Your task to perform on an android device: See recent photos Image 0: 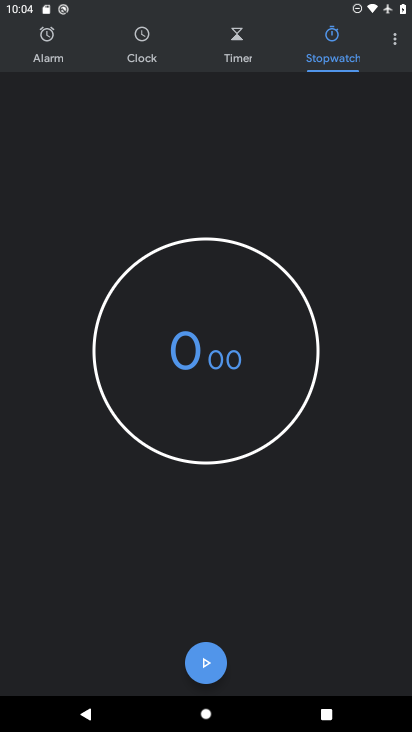
Step 0: press home button
Your task to perform on an android device: See recent photos Image 1: 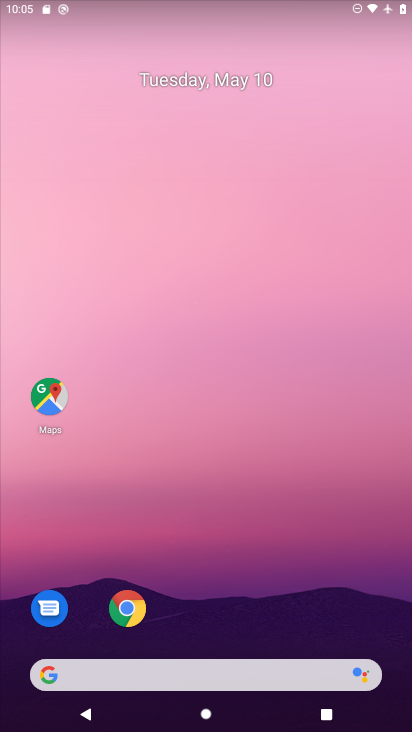
Step 1: drag from (220, 626) to (288, 274)
Your task to perform on an android device: See recent photos Image 2: 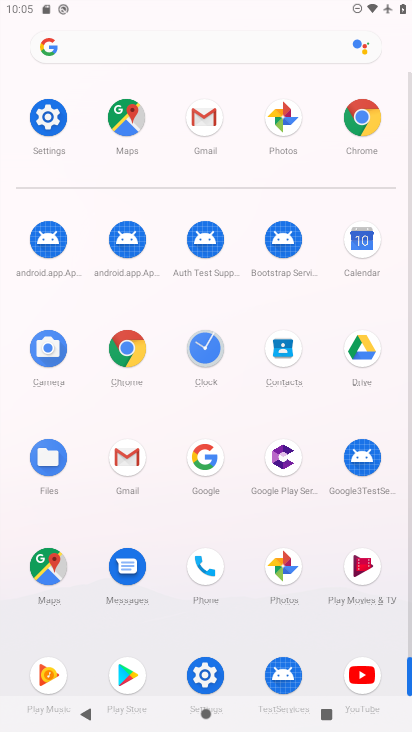
Step 2: click (282, 564)
Your task to perform on an android device: See recent photos Image 3: 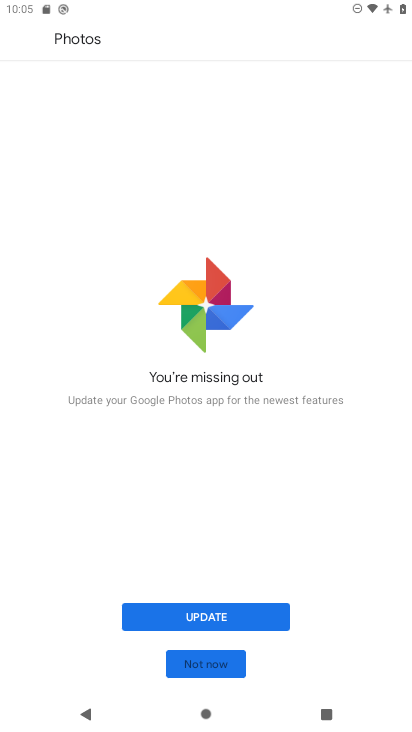
Step 3: click (209, 662)
Your task to perform on an android device: See recent photos Image 4: 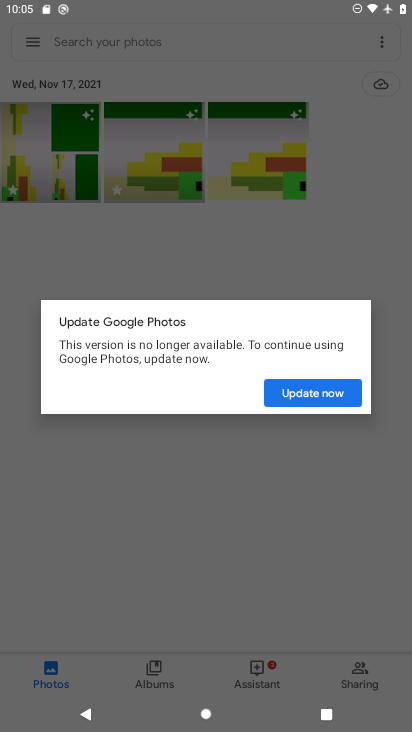
Step 4: click (307, 378)
Your task to perform on an android device: See recent photos Image 5: 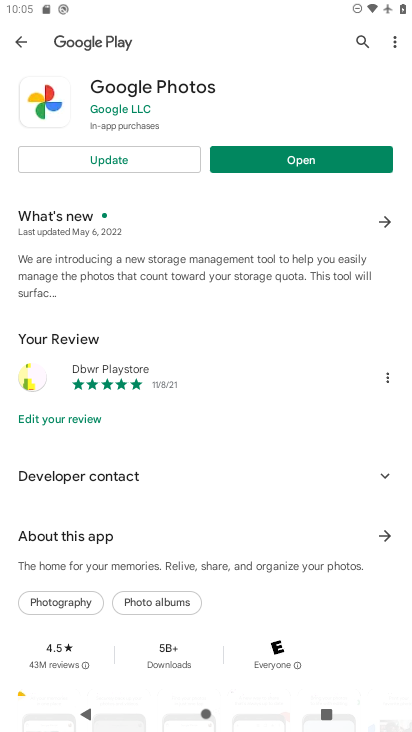
Step 5: press back button
Your task to perform on an android device: See recent photos Image 6: 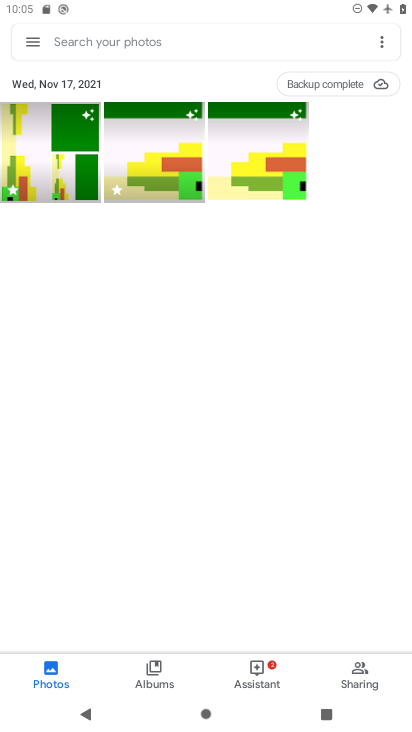
Step 6: click (151, 666)
Your task to perform on an android device: See recent photos Image 7: 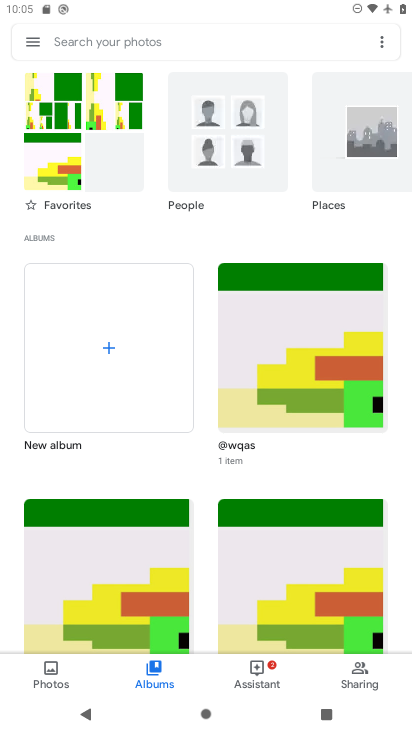
Step 7: click (50, 679)
Your task to perform on an android device: See recent photos Image 8: 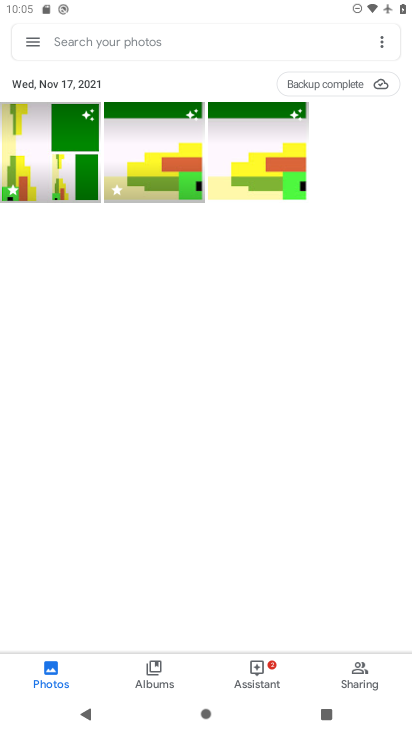
Step 8: click (60, 151)
Your task to perform on an android device: See recent photos Image 9: 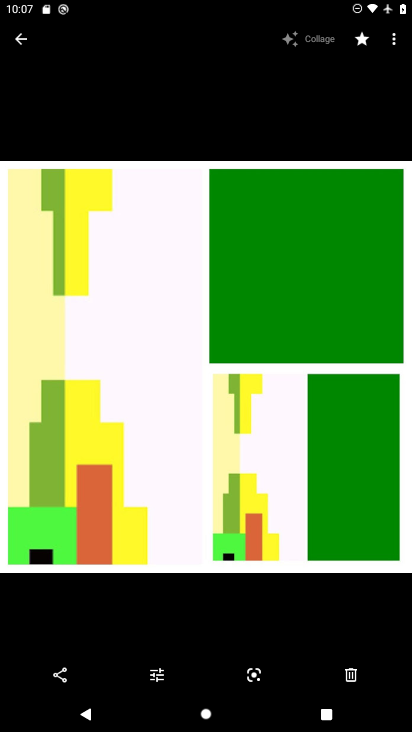
Step 9: task complete